Your task to perform on an android device: Turn on the flashlight Image 0: 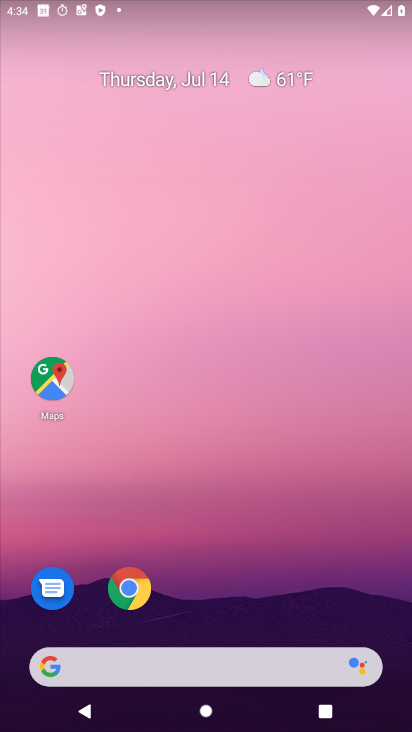
Step 0: drag from (202, 665) to (251, 198)
Your task to perform on an android device: Turn on the flashlight Image 1: 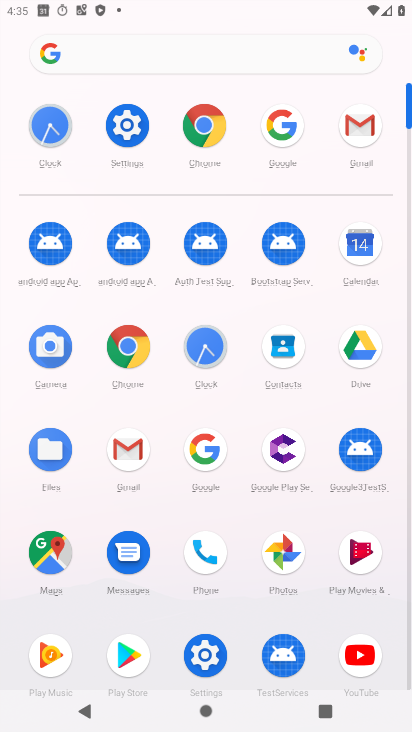
Step 1: click (128, 127)
Your task to perform on an android device: Turn on the flashlight Image 2: 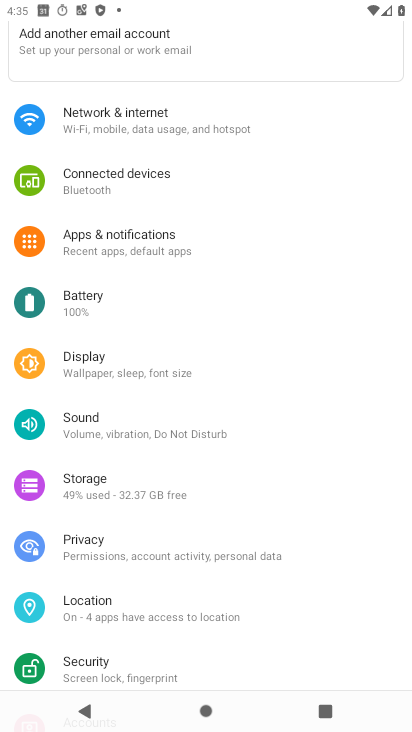
Step 2: click (80, 362)
Your task to perform on an android device: Turn on the flashlight Image 3: 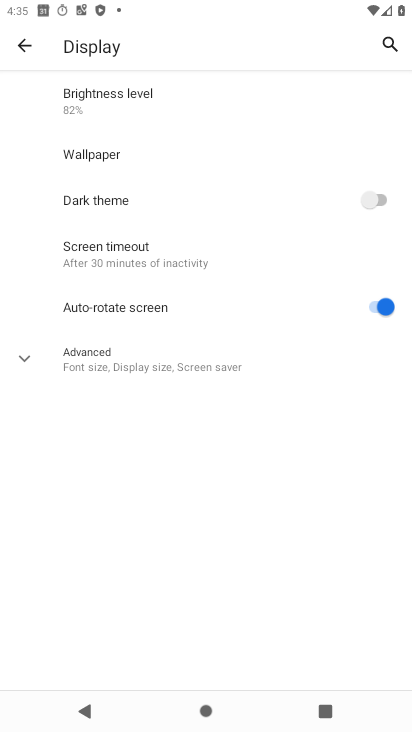
Step 3: click (80, 362)
Your task to perform on an android device: Turn on the flashlight Image 4: 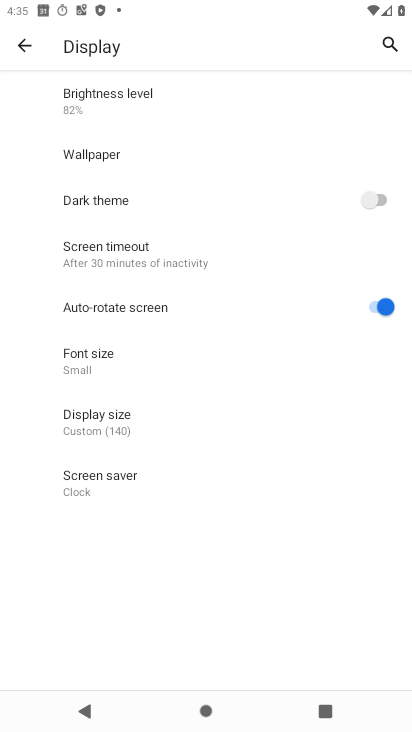
Step 4: press back button
Your task to perform on an android device: Turn on the flashlight Image 5: 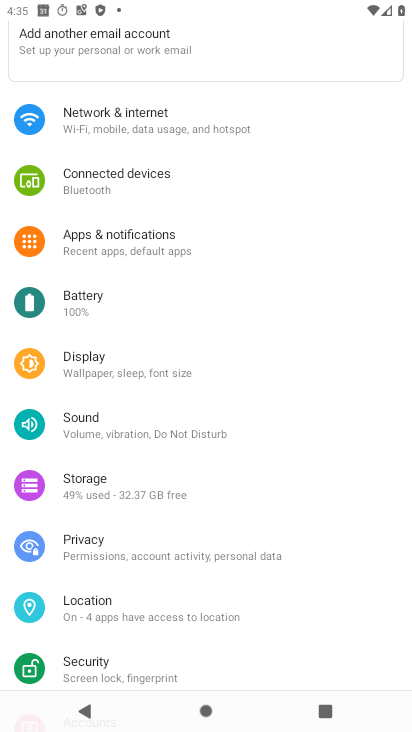
Step 5: click (113, 247)
Your task to perform on an android device: Turn on the flashlight Image 6: 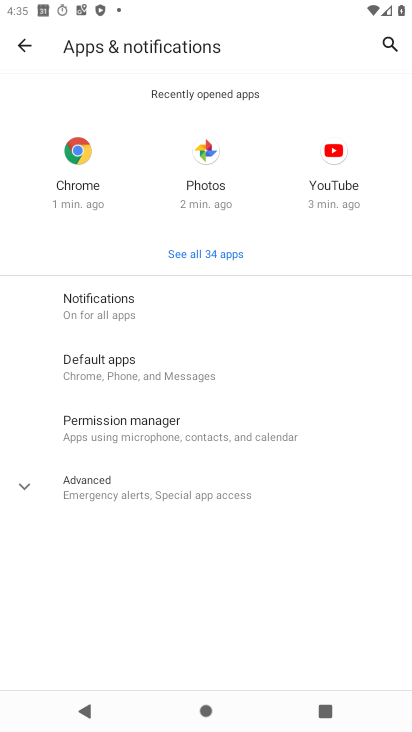
Step 6: click (114, 487)
Your task to perform on an android device: Turn on the flashlight Image 7: 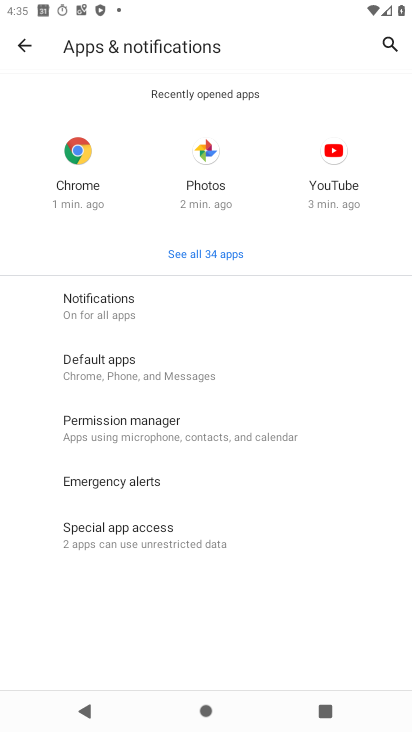
Step 7: click (139, 537)
Your task to perform on an android device: Turn on the flashlight Image 8: 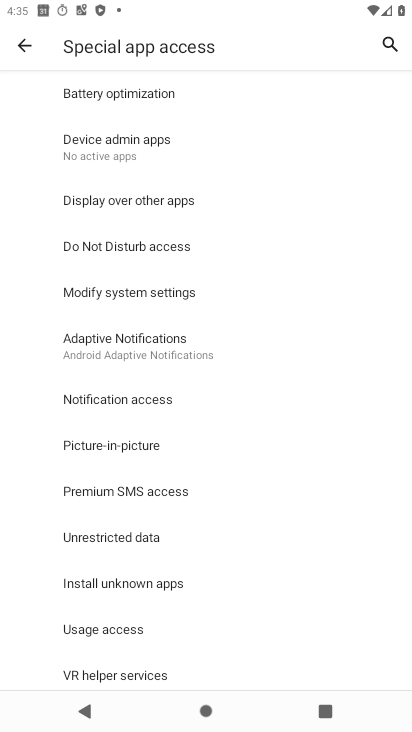
Step 8: drag from (119, 535) to (180, 440)
Your task to perform on an android device: Turn on the flashlight Image 9: 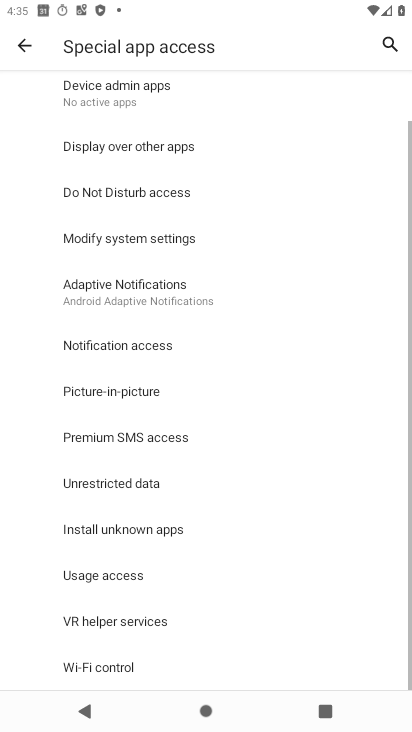
Step 9: drag from (133, 635) to (197, 473)
Your task to perform on an android device: Turn on the flashlight Image 10: 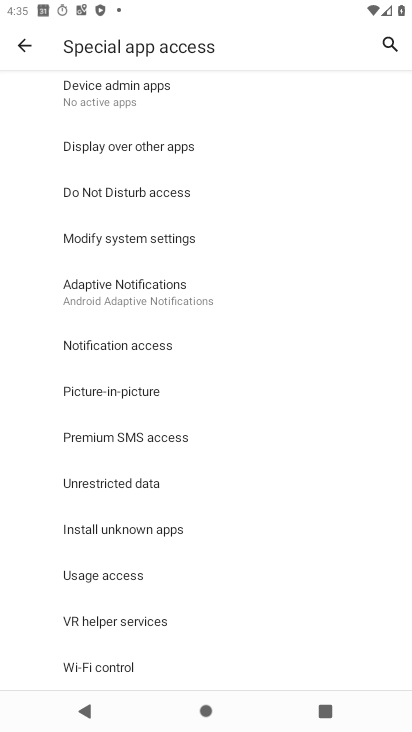
Step 10: press back button
Your task to perform on an android device: Turn on the flashlight Image 11: 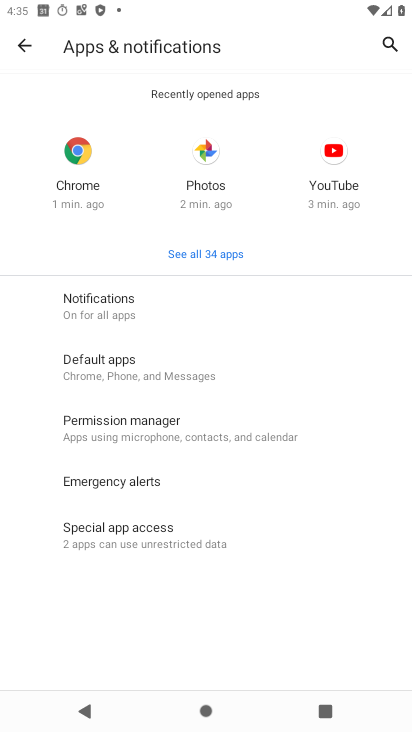
Step 11: click (20, 51)
Your task to perform on an android device: Turn on the flashlight Image 12: 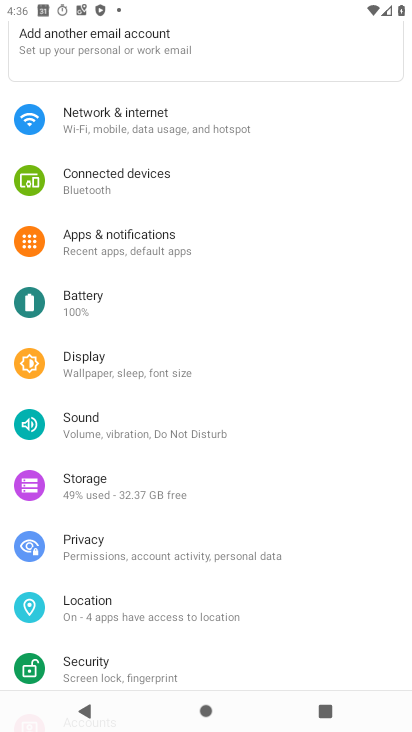
Step 12: task complete